Your task to perform on an android device: Go to Reddit.com Image 0: 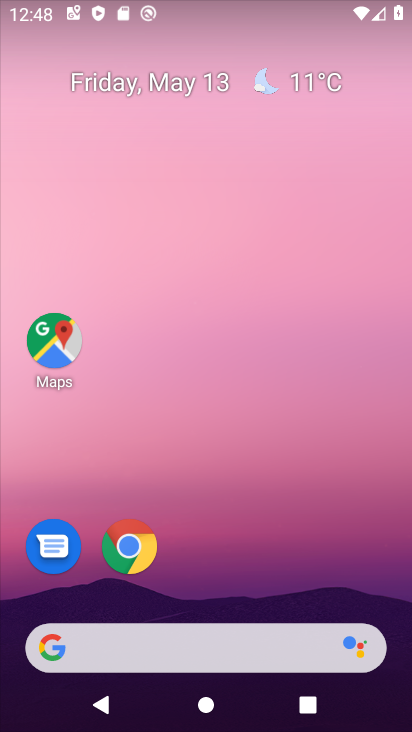
Step 0: drag from (225, 624) to (274, 96)
Your task to perform on an android device: Go to Reddit.com Image 1: 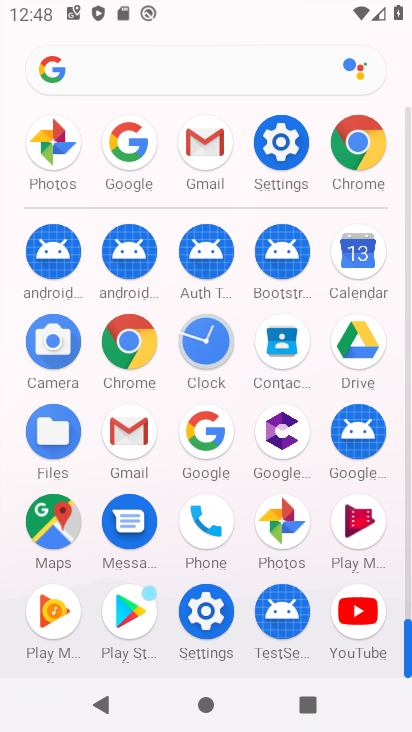
Step 1: drag from (234, 521) to (284, 237)
Your task to perform on an android device: Go to Reddit.com Image 2: 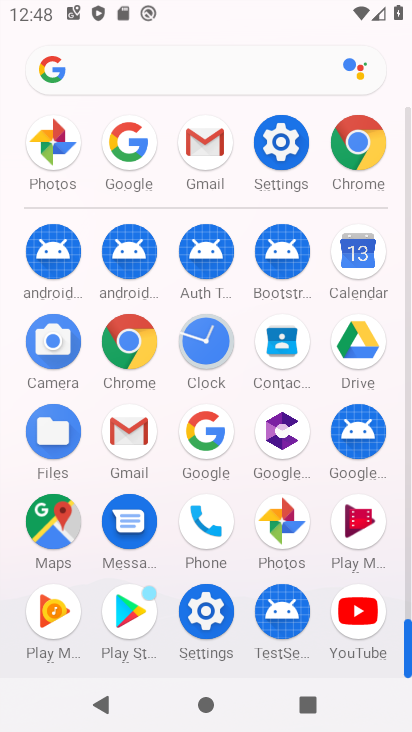
Step 2: click (148, 345)
Your task to perform on an android device: Go to Reddit.com Image 3: 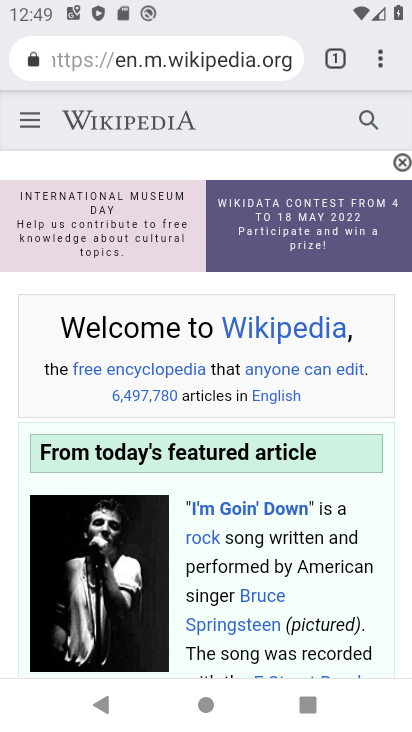
Step 3: click (227, 63)
Your task to perform on an android device: Go to Reddit.com Image 4: 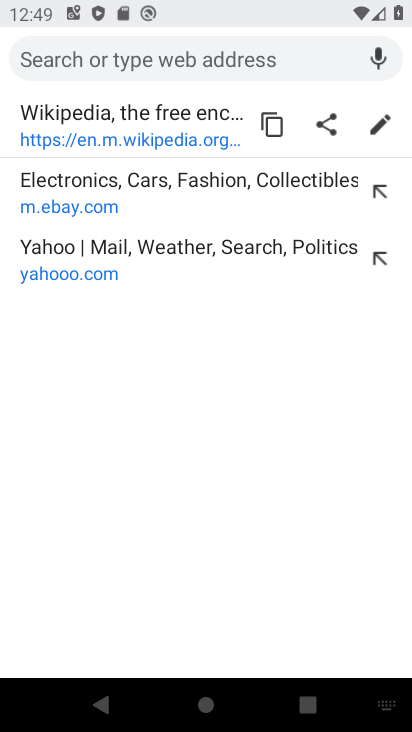
Step 4: type "reddit"
Your task to perform on an android device: Go to Reddit.com Image 5: 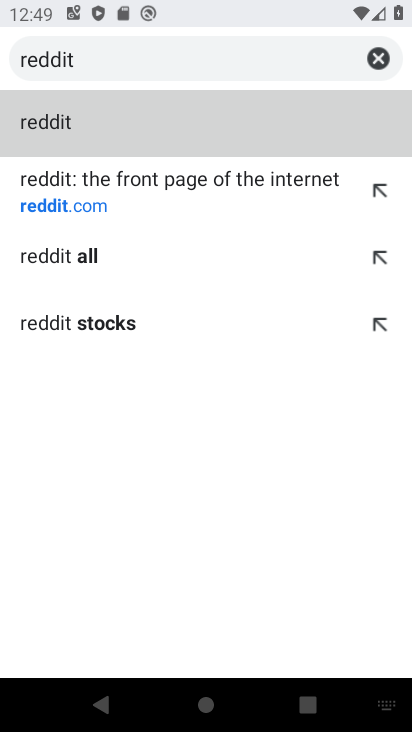
Step 5: click (178, 199)
Your task to perform on an android device: Go to Reddit.com Image 6: 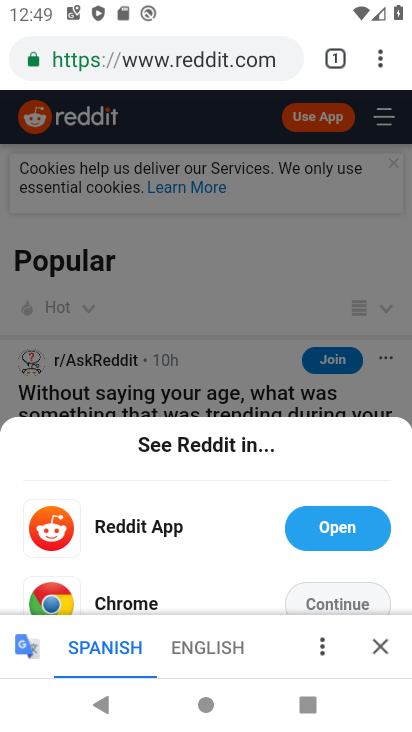
Step 6: click (385, 648)
Your task to perform on an android device: Go to Reddit.com Image 7: 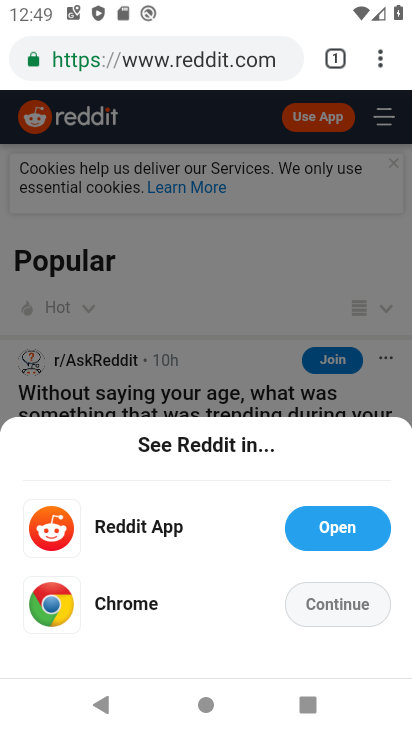
Step 7: click (351, 613)
Your task to perform on an android device: Go to Reddit.com Image 8: 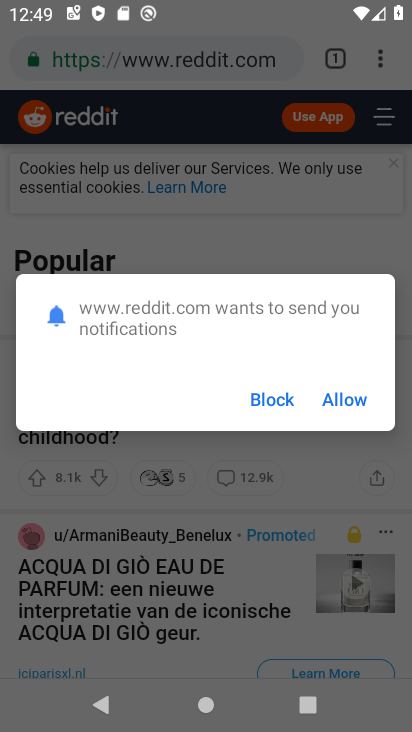
Step 8: click (285, 407)
Your task to perform on an android device: Go to Reddit.com Image 9: 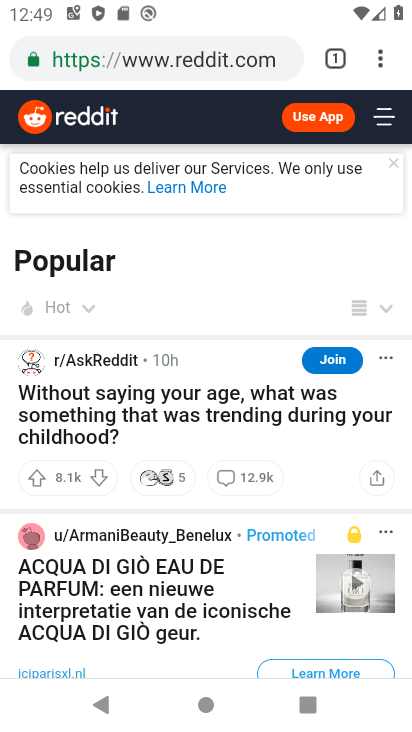
Step 9: task complete